Your task to perform on an android device: allow cookies in the chrome app Image 0: 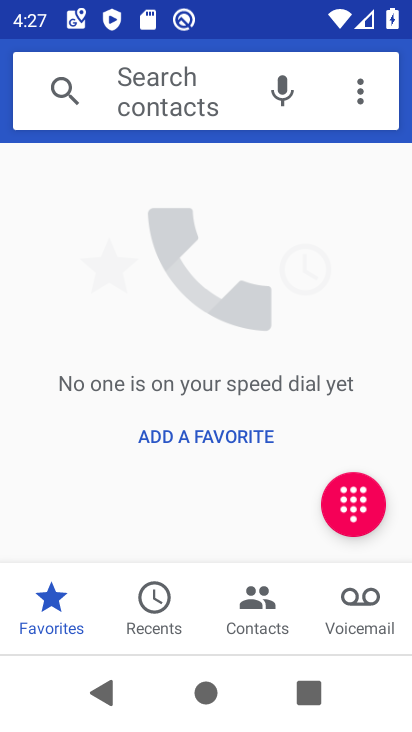
Step 0: press home button
Your task to perform on an android device: allow cookies in the chrome app Image 1: 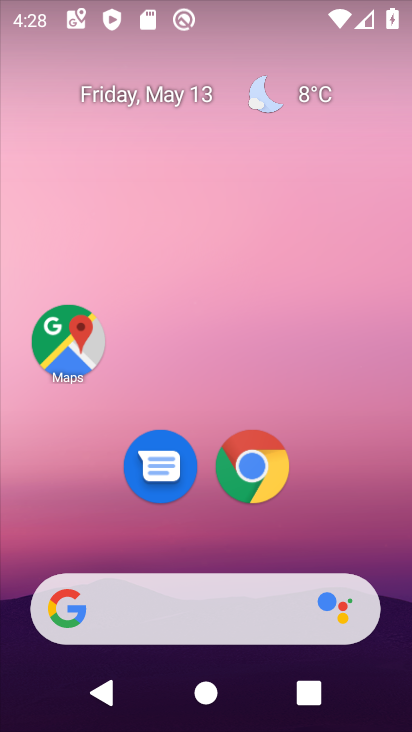
Step 1: click (253, 469)
Your task to perform on an android device: allow cookies in the chrome app Image 2: 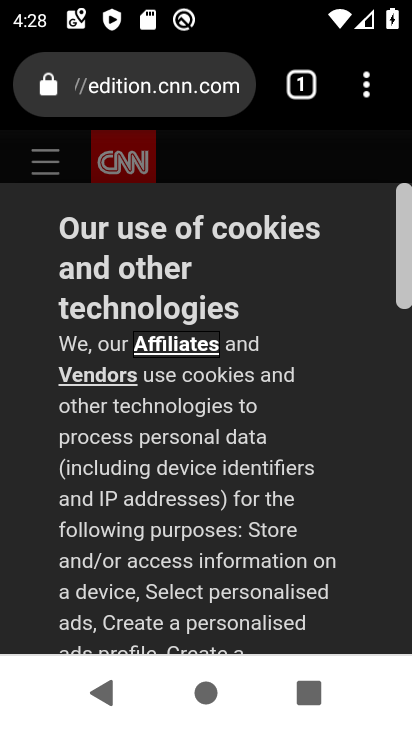
Step 2: click (366, 95)
Your task to perform on an android device: allow cookies in the chrome app Image 3: 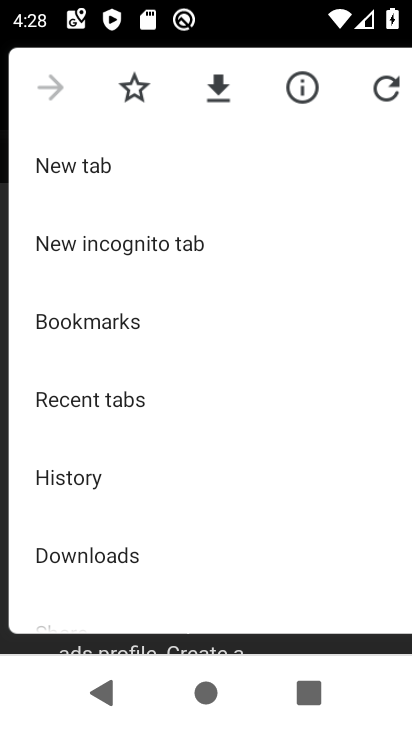
Step 3: drag from (167, 497) to (261, 114)
Your task to perform on an android device: allow cookies in the chrome app Image 4: 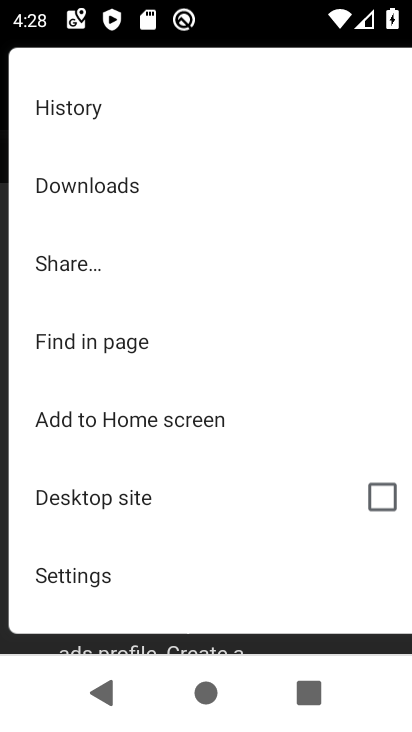
Step 4: drag from (196, 602) to (215, 309)
Your task to perform on an android device: allow cookies in the chrome app Image 5: 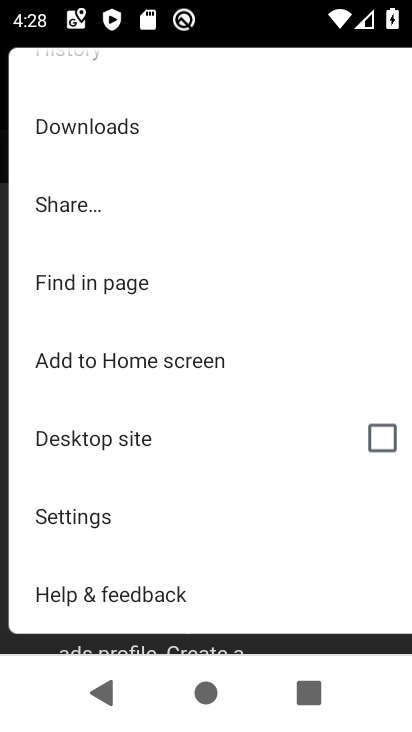
Step 5: click (88, 526)
Your task to perform on an android device: allow cookies in the chrome app Image 6: 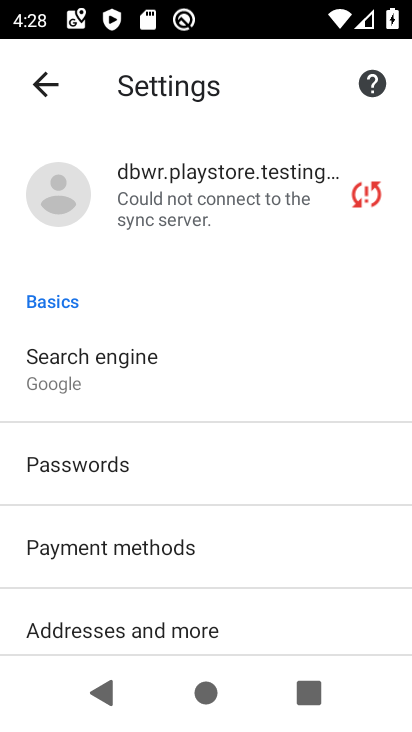
Step 6: drag from (250, 629) to (217, 159)
Your task to perform on an android device: allow cookies in the chrome app Image 7: 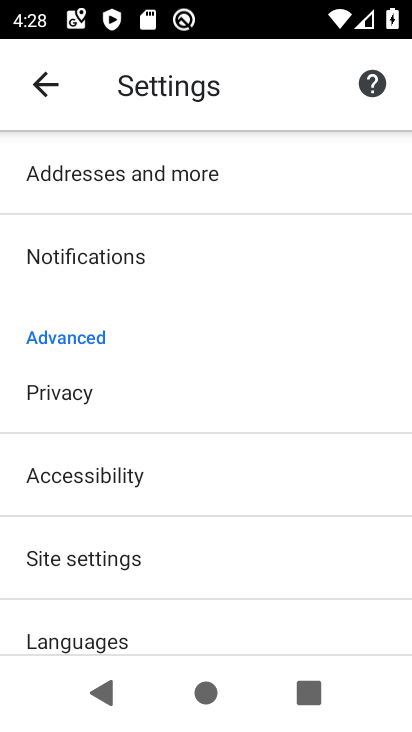
Step 7: click (75, 549)
Your task to perform on an android device: allow cookies in the chrome app Image 8: 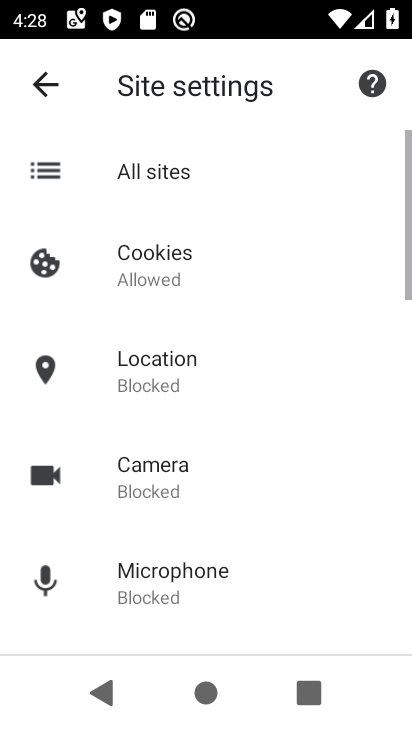
Step 8: click (145, 265)
Your task to perform on an android device: allow cookies in the chrome app Image 9: 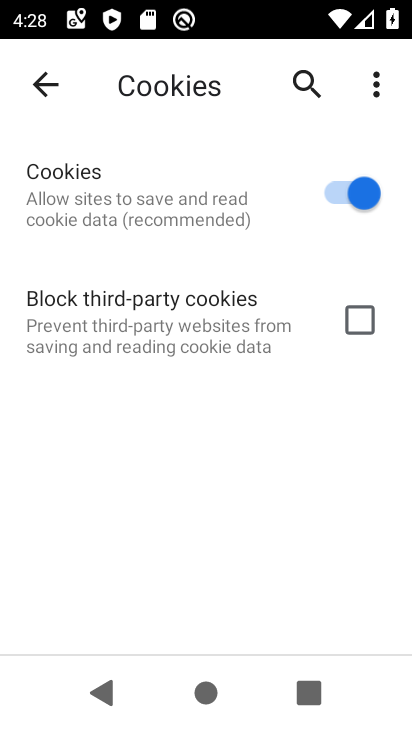
Step 9: task complete